Your task to perform on an android device: check storage Image 0: 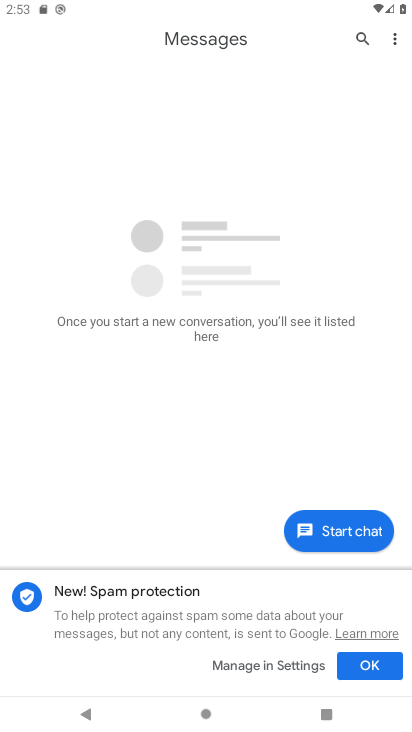
Step 0: press home button
Your task to perform on an android device: check storage Image 1: 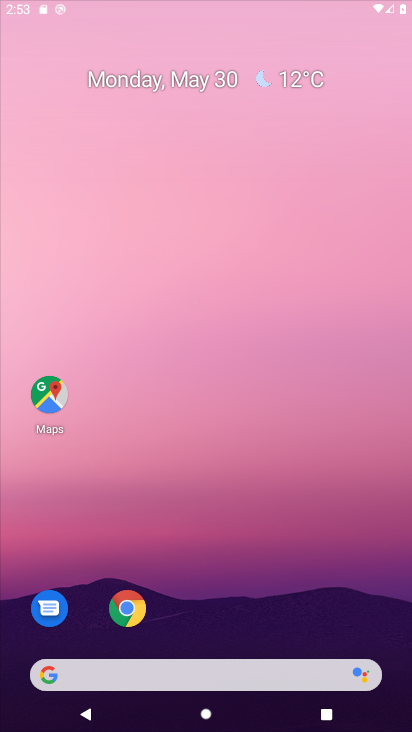
Step 1: drag from (290, 557) to (183, 38)
Your task to perform on an android device: check storage Image 2: 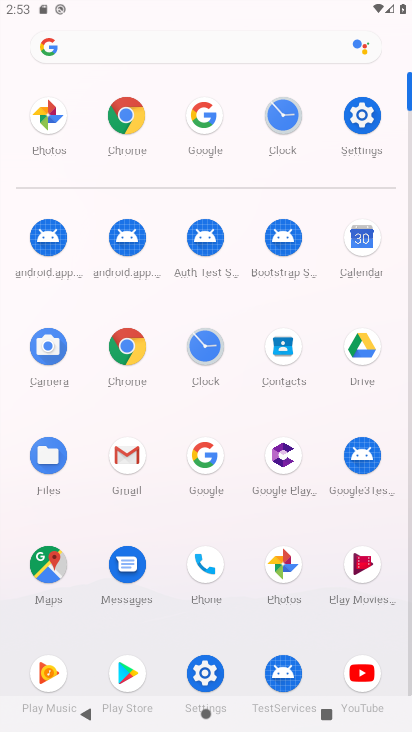
Step 2: click (365, 119)
Your task to perform on an android device: check storage Image 3: 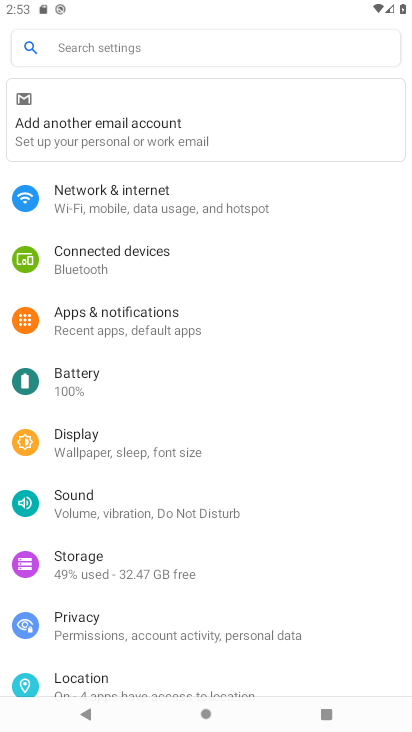
Step 3: click (153, 560)
Your task to perform on an android device: check storage Image 4: 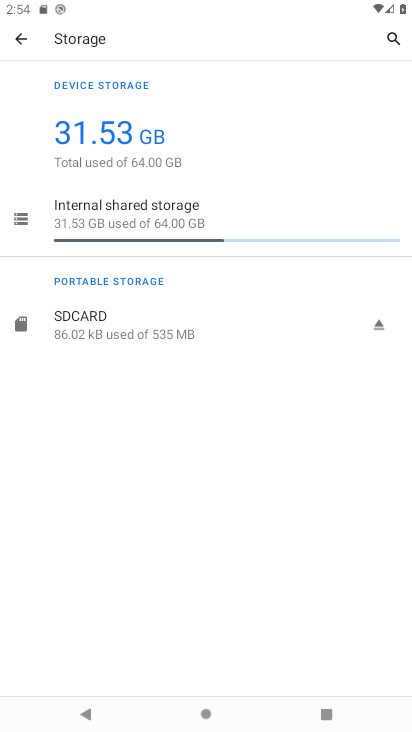
Step 4: task complete